Your task to perform on an android device: toggle translation in the chrome app Image 0: 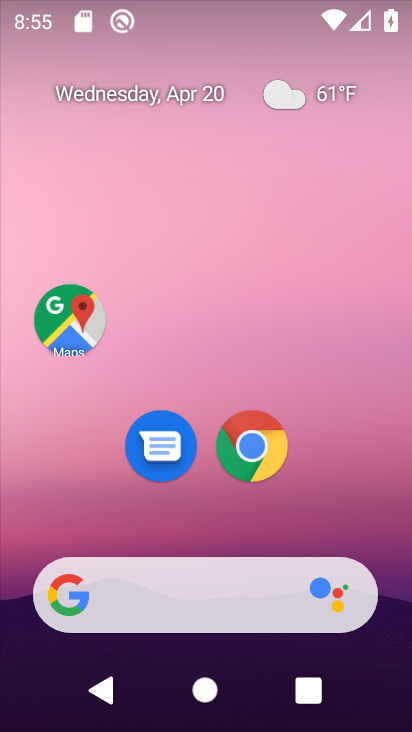
Step 0: drag from (373, 499) to (366, 42)
Your task to perform on an android device: toggle translation in the chrome app Image 1: 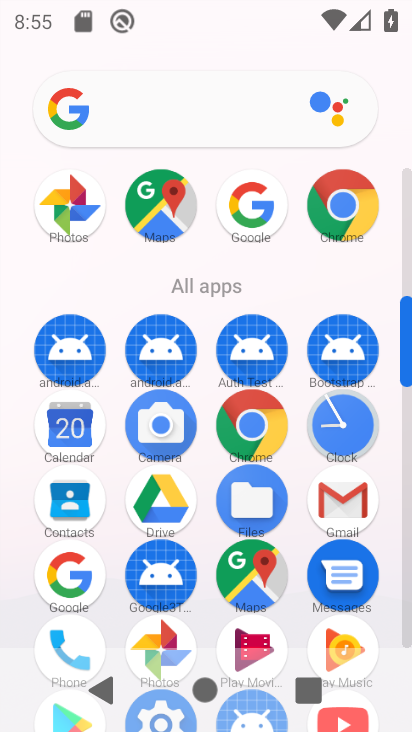
Step 1: click (59, 580)
Your task to perform on an android device: toggle translation in the chrome app Image 2: 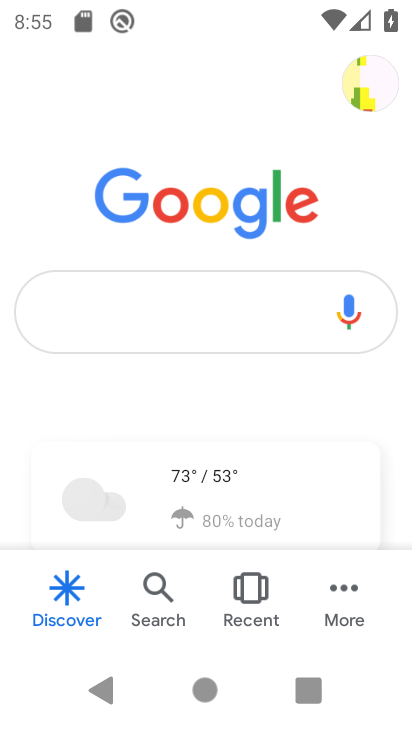
Step 2: task complete